Your task to perform on an android device: see tabs open on other devices in the chrome app Image 0: 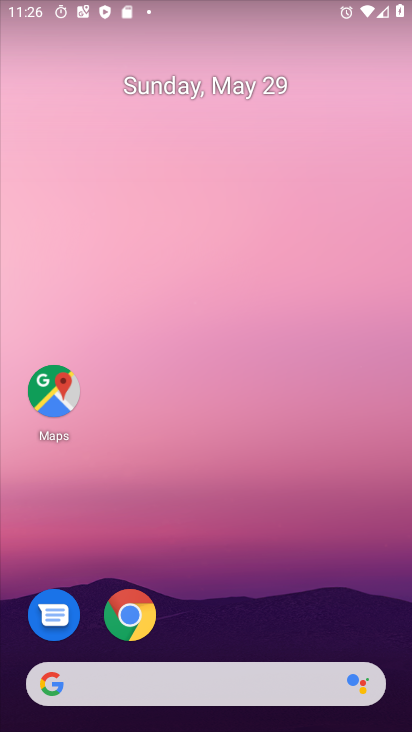
Step 0: drag from (241, 608) to (239, 120)
Your task to perform on an android device: see tabs open on other devices in the chrome app Image 1: 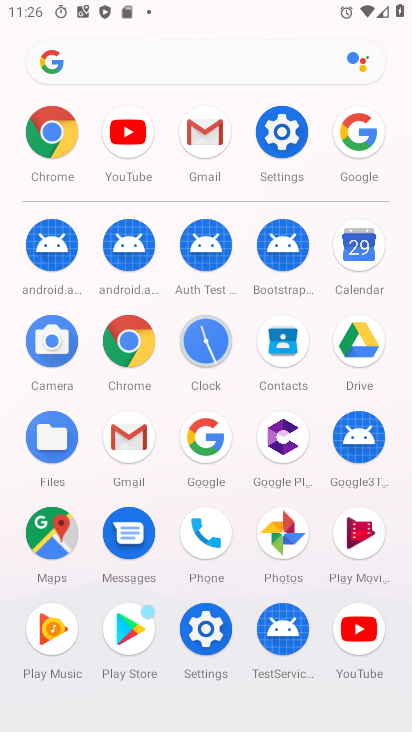
Step 1: click (131, 341)
Your task to perform on an android device: see tabs open on other devices in the chrome app Image 2: 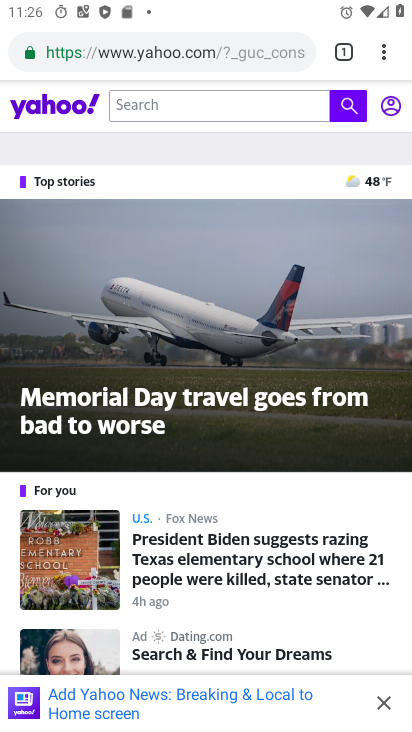
Step 2: click (351, 50)
Your task to perform on an android device: see tabs open on other devices in the chrome app Image 3: 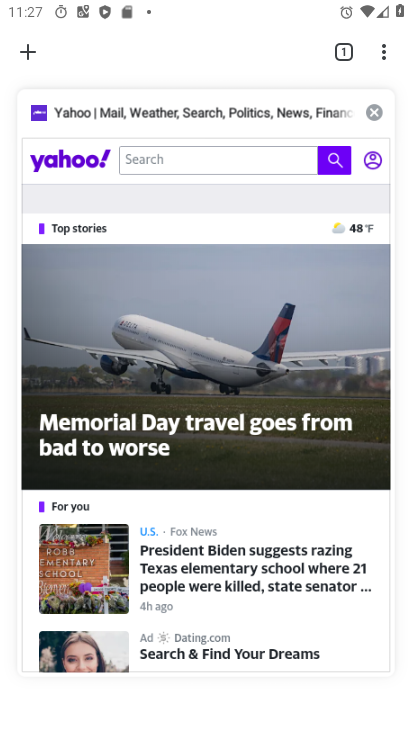
Step 3: task complete